Your task to perform on an android device: turn off sleep mode Image 0: 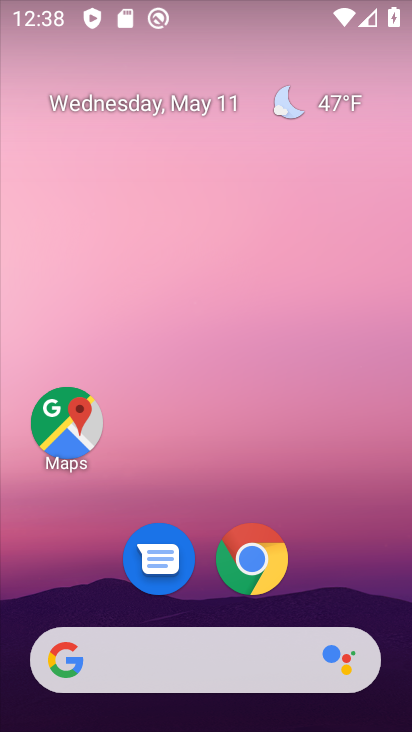
Step 0: drag from (213, 615) to (135, 11)
Your task to perform on an android device: turn off sleep mode Image 1: 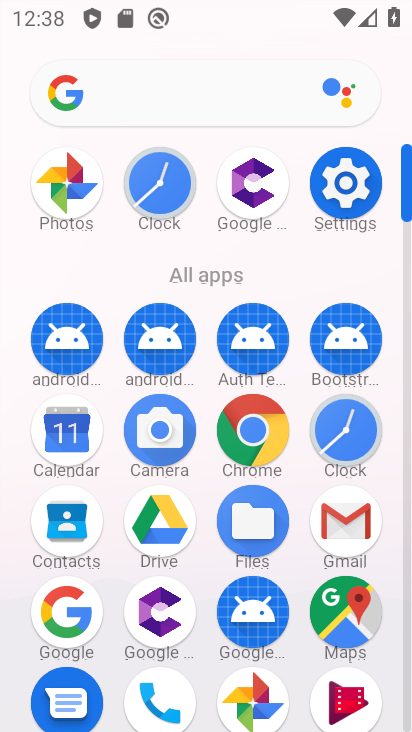
Step 1: click (340, 213)
Your task to perform on an android device: turn off sleep mode Image 2: 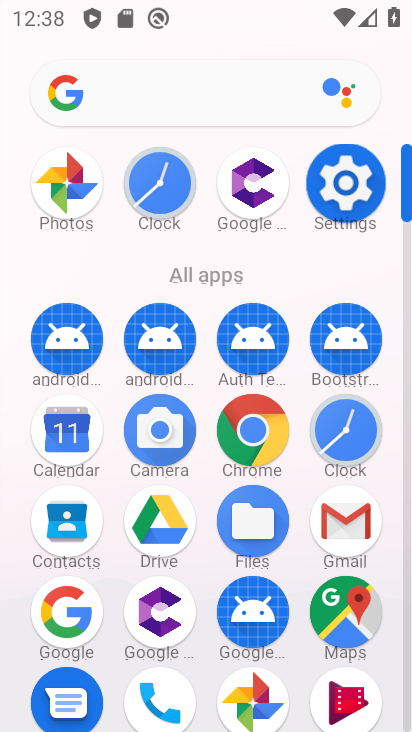
Step 2: click (350, 204)
Your task to perform on an android device: turn off sleep mode Image 3: 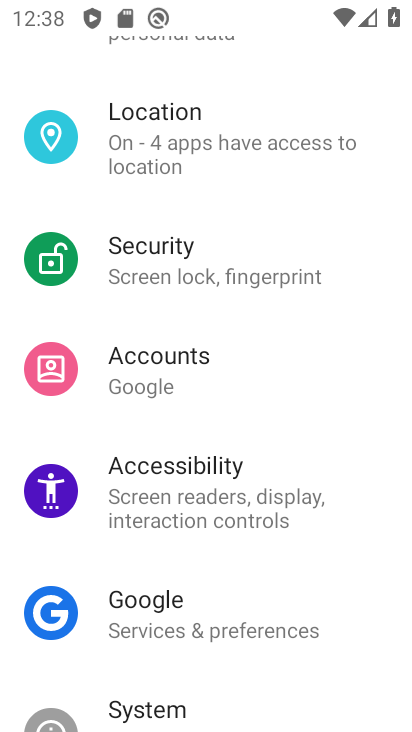
Step 3: drag from (225, 179) to (218, 731)
Your task to perform on an android device: turn off sleep mode Image 4: 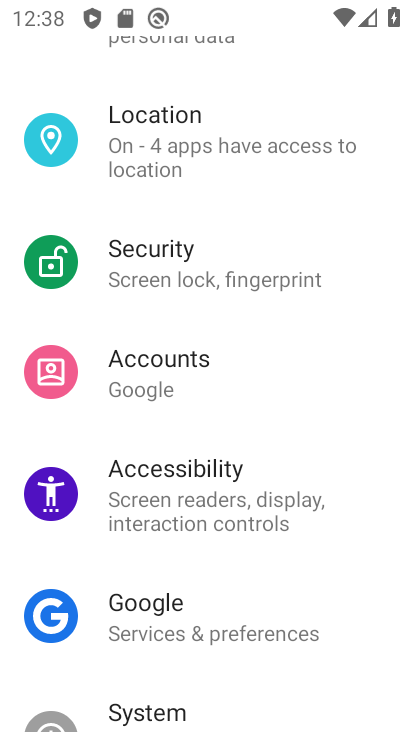
Step 4: drag from (278, 363) to (276, 619)
Your task to perform on an android device: turn off sleep mode Image 5: 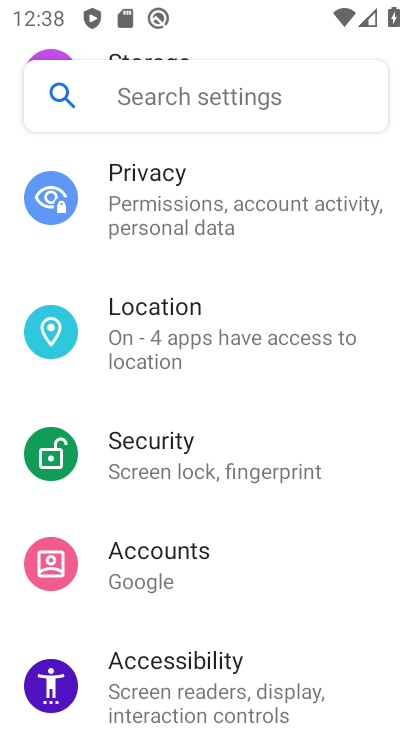
Step 5: drag from (187, 391) to (166, 533)
Your task to perform on an android device: turn off sleep mode Image 6: 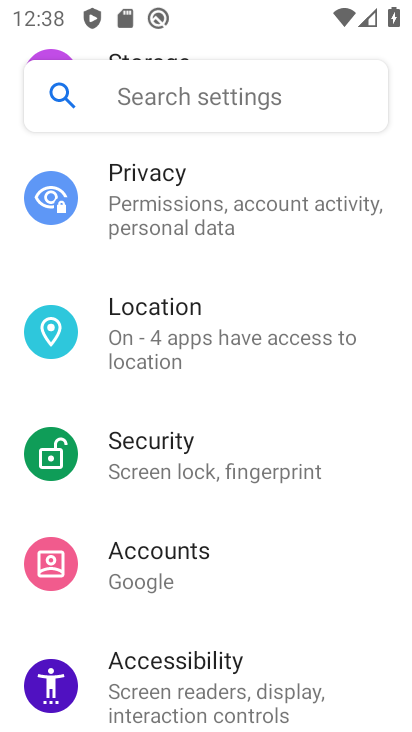
Step 6: drag from (205, 358) to (201, 478)
Your task to perform on an android device: turn off sleep mode Image 7: 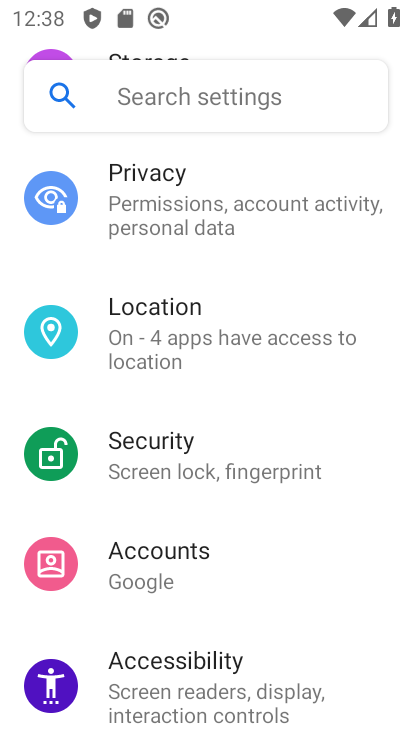
Step 7: drag from (247, 582) to (237, 635)
Your task to perform on an android device: turn off sleep mode Image 8: 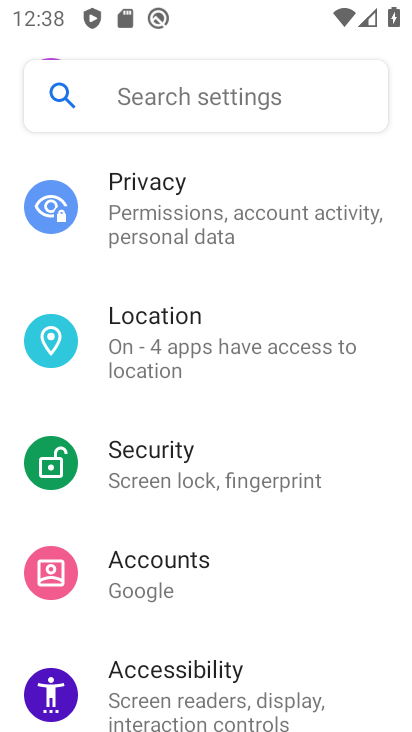
Step 8: drag from (243, 152) to (247, 512)
Your task to perform on an android device: turn off sleep mode Image 9: 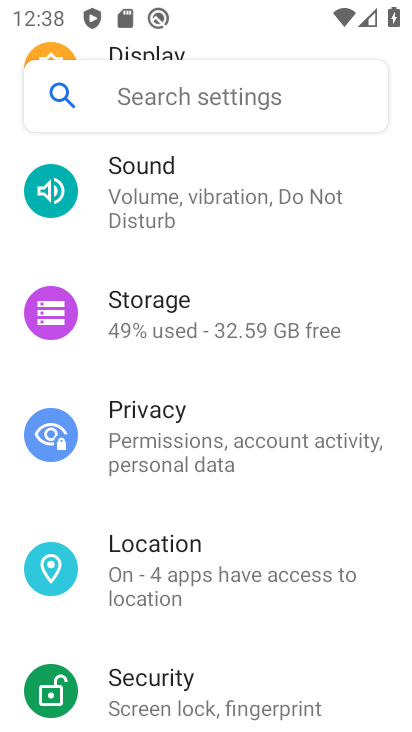
Step 9: click (194, 106)
Your task to perform on an android device: turn off sleep mode Image 10: 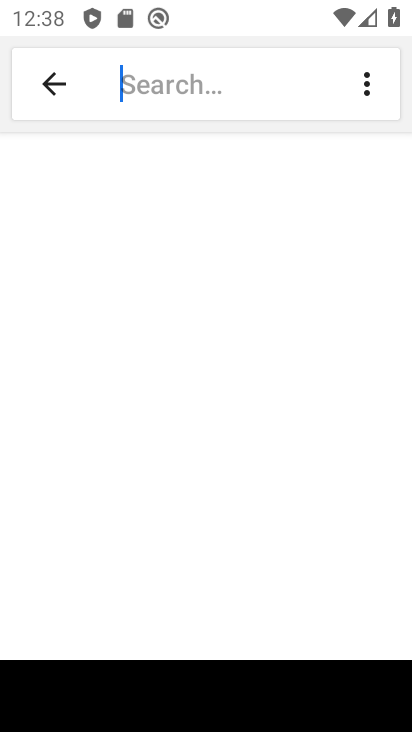
Step 10: type "sleep mode"
Your task to perform on an android device: turn off sleep mode Image 11: 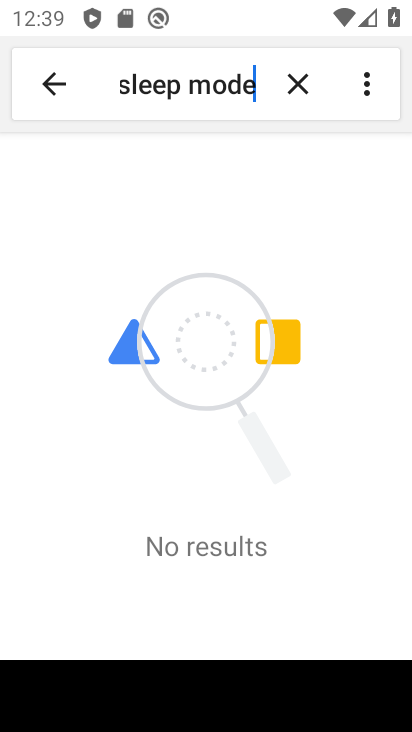
Step 11: task complete